Your task to perform on an android device: change timer sound Image 0: 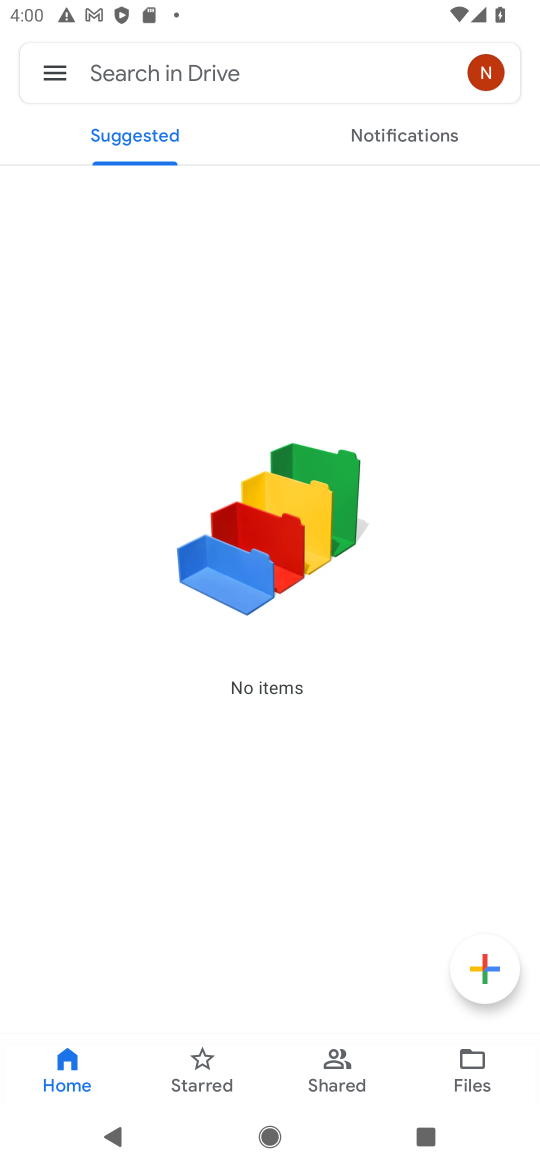
Step 0: press home button
Your task to perform on an android device: change timer sound Image 1: 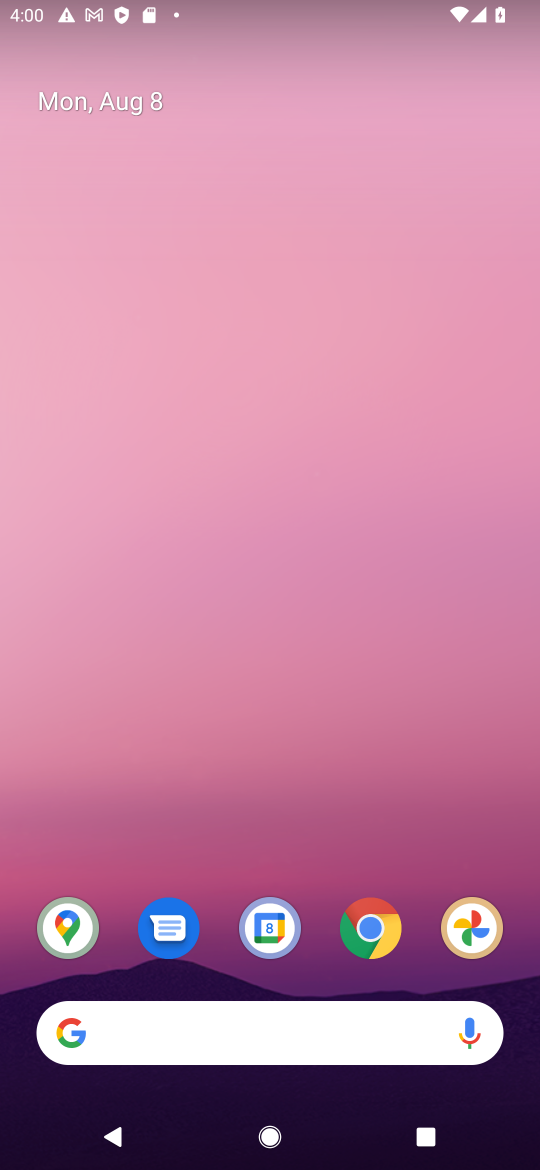
Step 1: drag from (303, 841) to (276, 63)
Your task to perform on an android device: change timer sound Image 2: 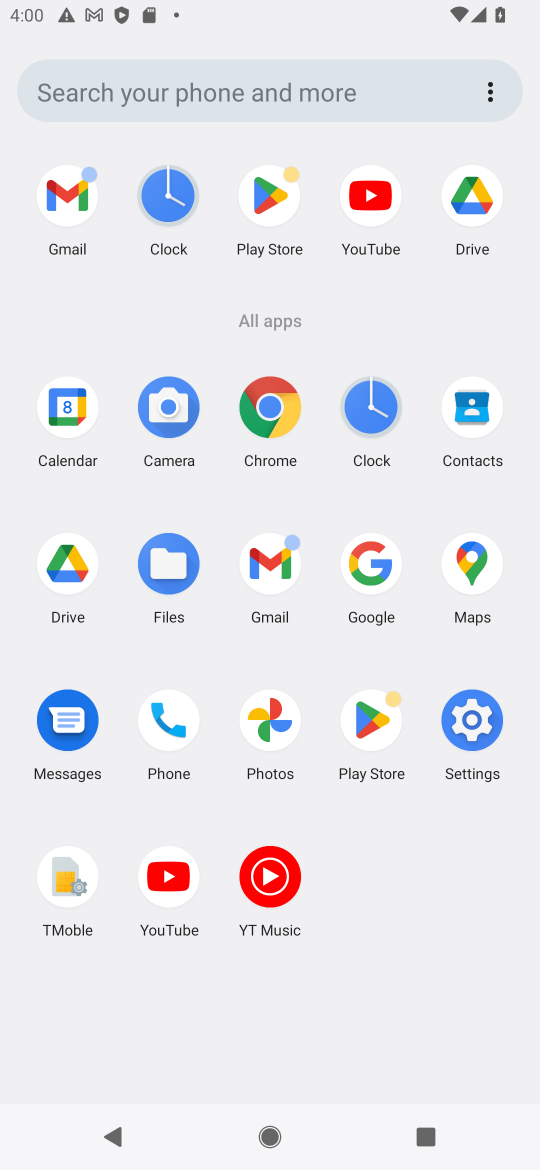
Step 2: click (375, 422)
Your task to perform on an android device: change timer sound Image 3: 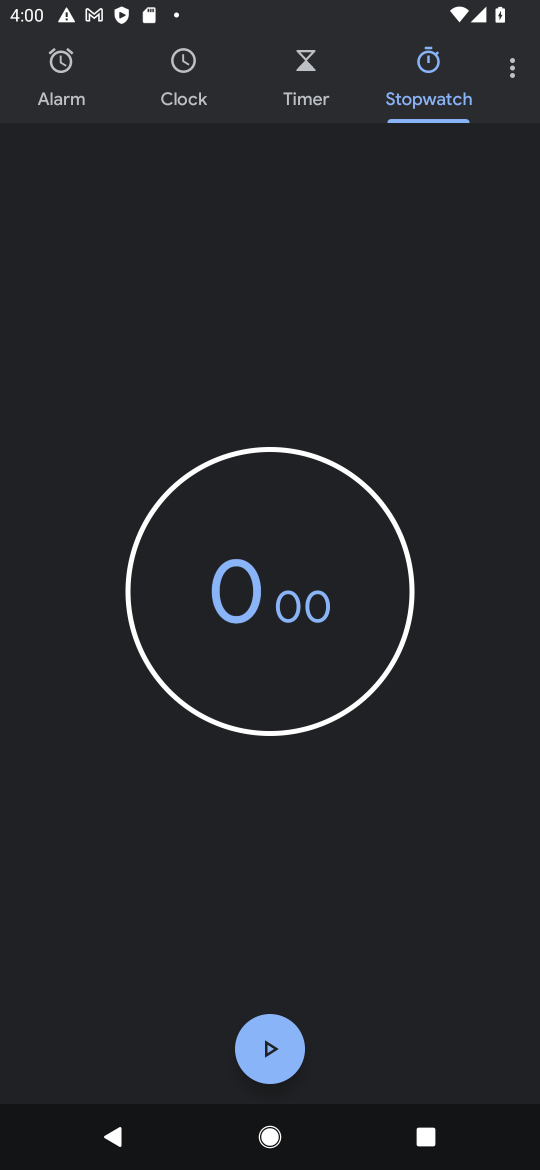
Step 3: click (517, 91)
Your task to perform on an android device: change timer sound Image 4: 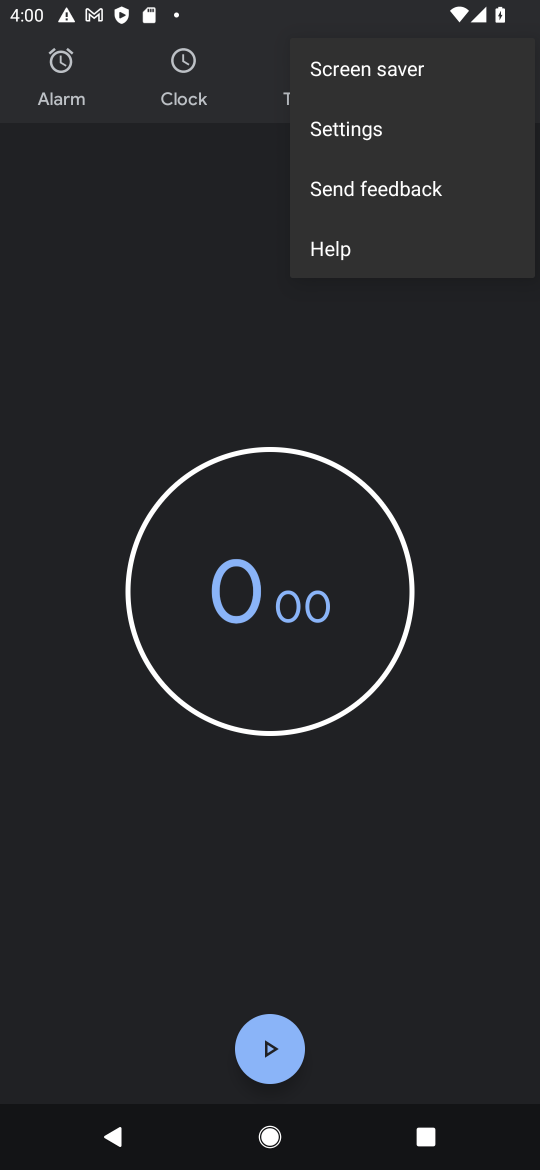
Step 4: click (379, 148)
Your task to perform on an android device: change timer sound Image 5: 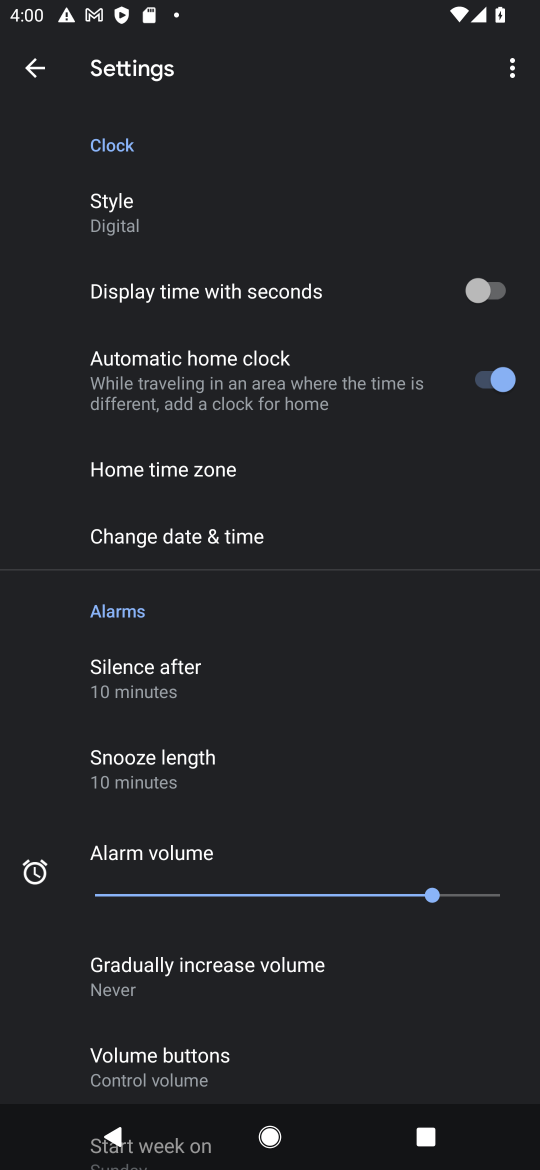
Step 5: drag from (263, 912) to (275, 200)
Your task to perform on an android device: change timer sound Image 6: 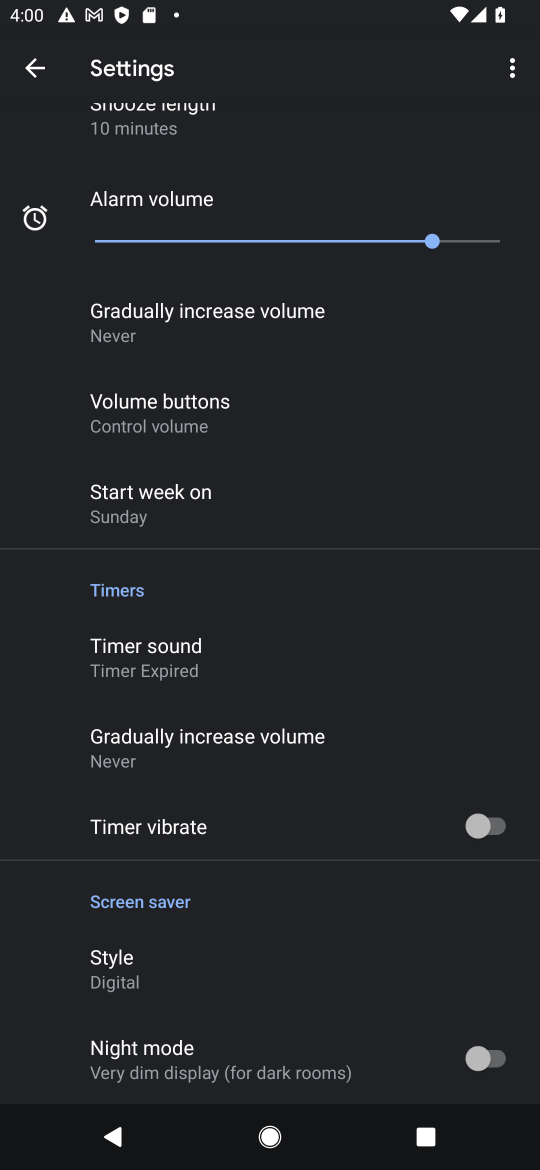
Step 6: click (246, 670)
Your task to perform on an android device: change timer sound Image 7: 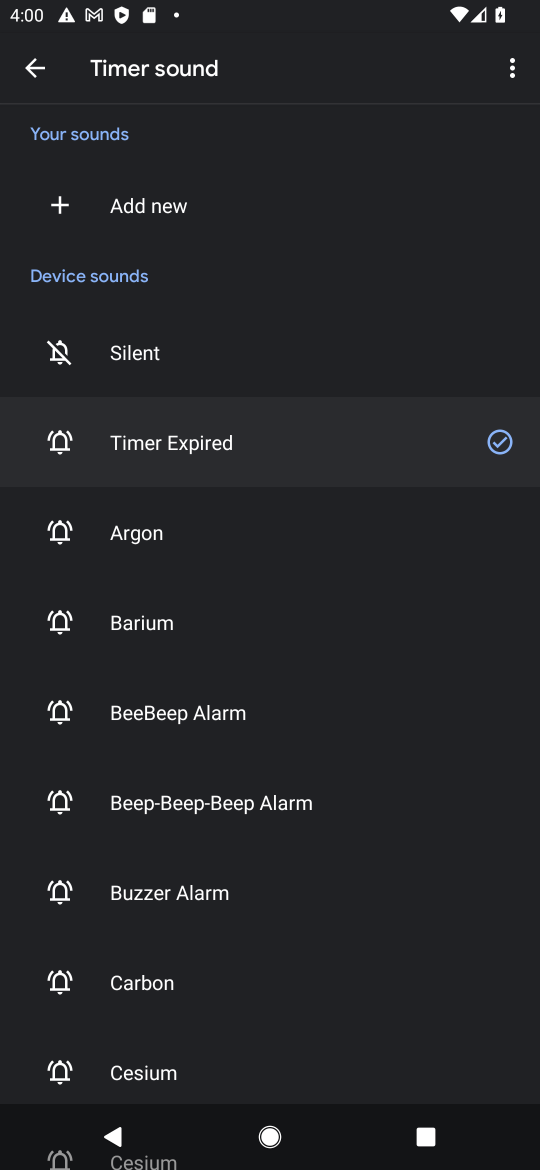
Step 7: click (290, 755)
Your task to perform on an android device: change timer sound Image 8: 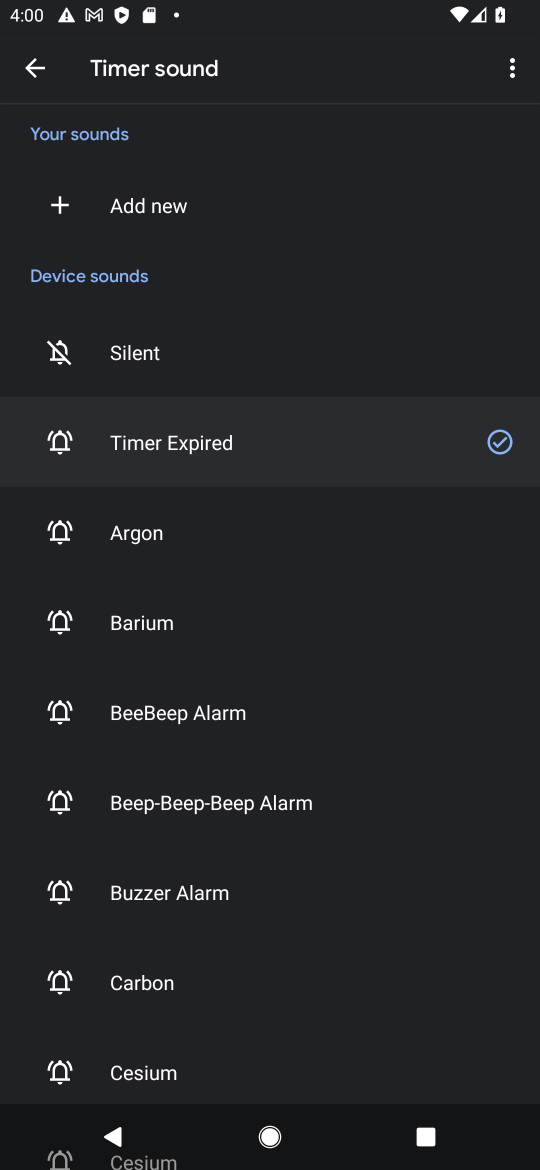
Step 8: click (262, 720)
Your task to perform on an android device: change timer sound Image 9: 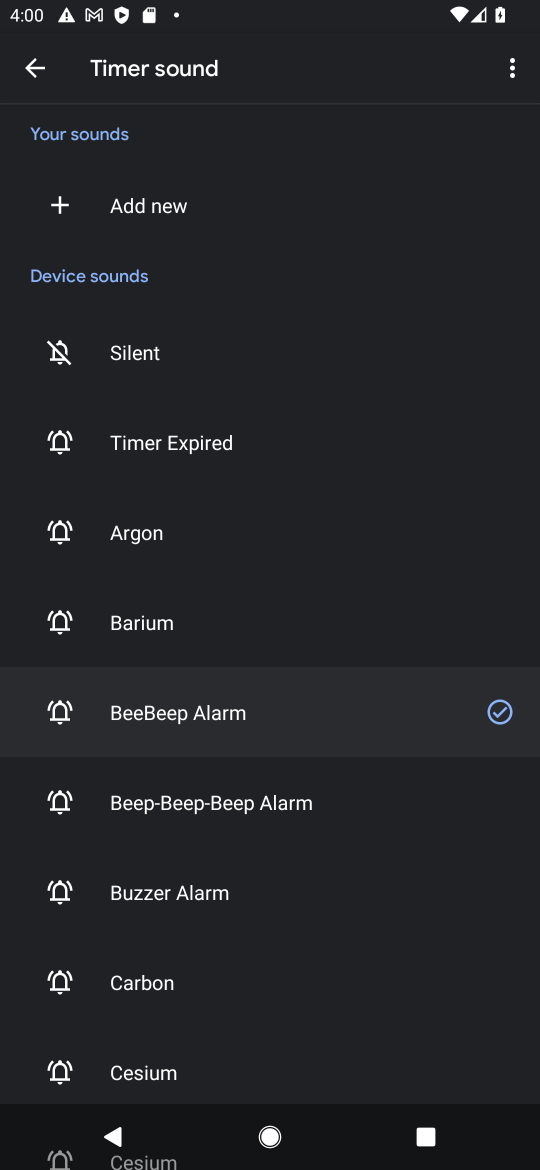
Step 9: task complete